Your task to perform on an android device: add a contact Image 0: 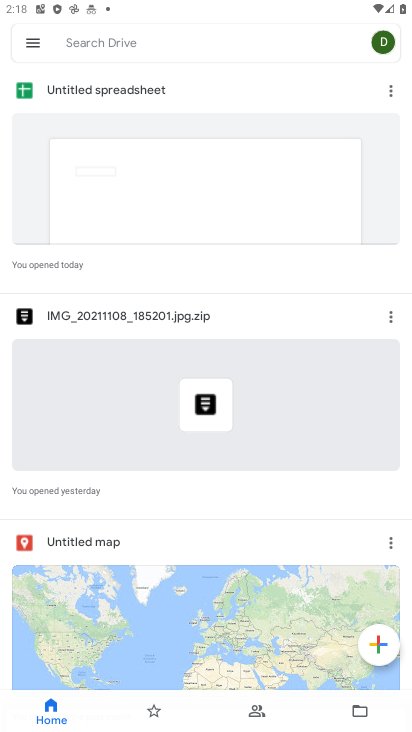
Step 0: press home button
Your task to perform on an android device: add a contact Image 1: 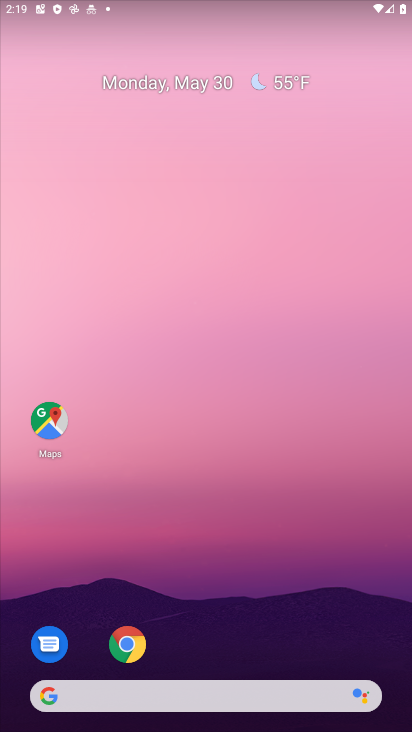
Step 1: drag from (363, 657) to (396, 80)
Your task to perform on an android device: add a contact Image 2: 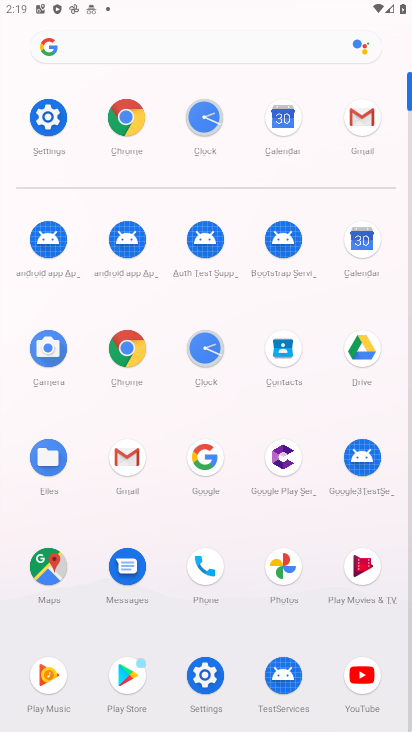
Step 2: click (301, 150)
Your task to perform on an android device: add a contact Image 3: 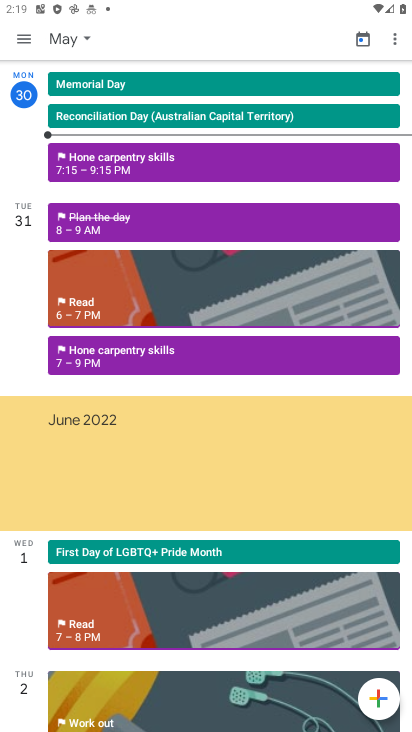
Step 3: task complete